Your task to perform on an android device: Show me popular games on the Play Store Image 0: 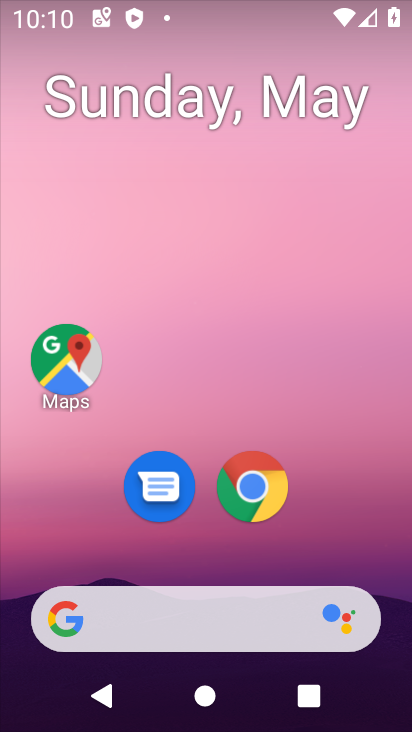
Step 0: drag from (336, 544) to (283, 139)
Your task to perform on an android device: Show me popular games on the Play Store Image 1: 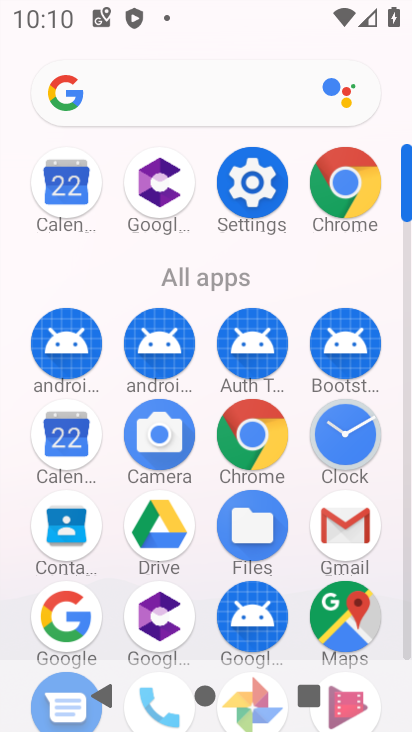
Step 1: drag from (116, 579) to (137, 278)
Your task to perform on an android device: Show me popular games on the Play Store Image 2: 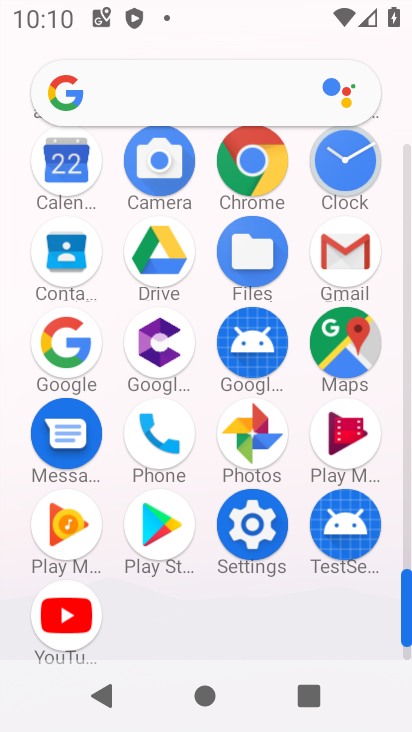
Step 2: click (161, 524)
Your task to perform on an android device: Show me popular games on the Play Store Image 3: 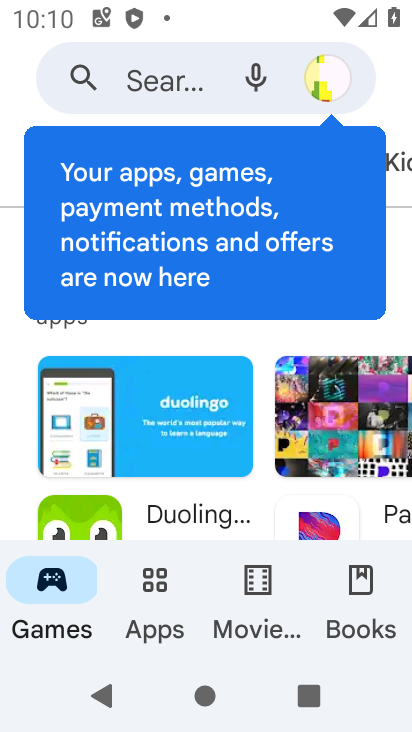
Step 3: click (191, 86)
Your task to perform on an android device: Show me popular games on the Play Store Image 4: 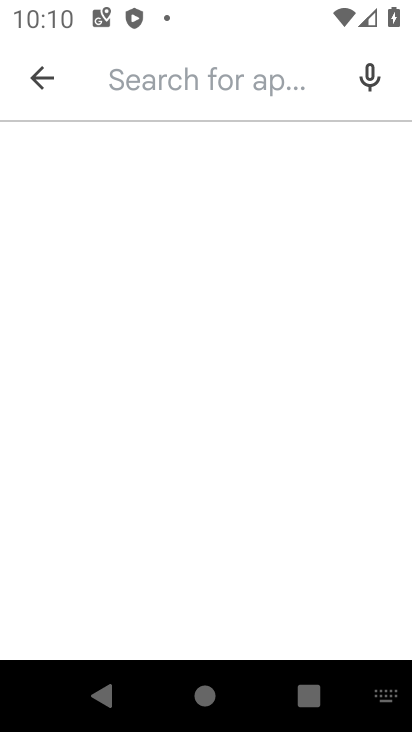
Step 4: type "popular games"
Your task to perform on an android device: Show me popular games on the Play Store Image 5: 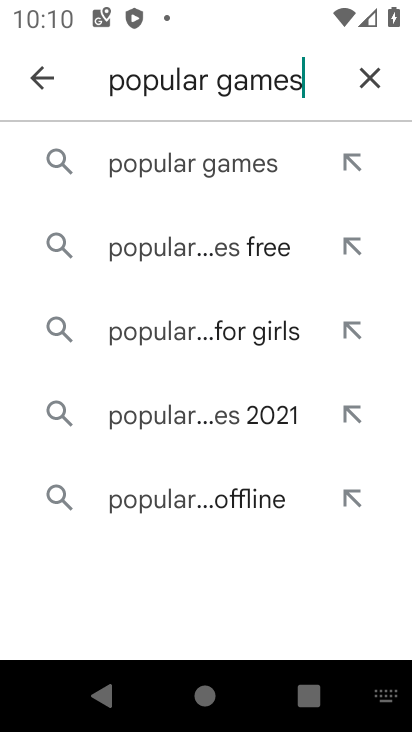
Step 5: click (187, 168)
Your task to perform on an android device: Show me popular games on the Play Store Image 6: 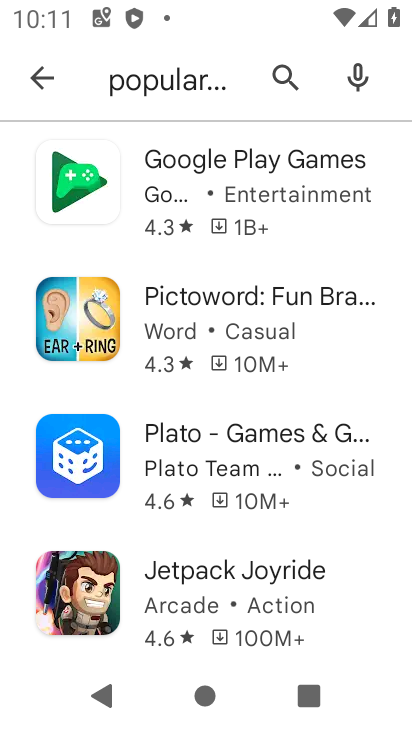
Step 6: task complete